Your task to perform on an android device: search for starred emails in the gmail app Image 0: 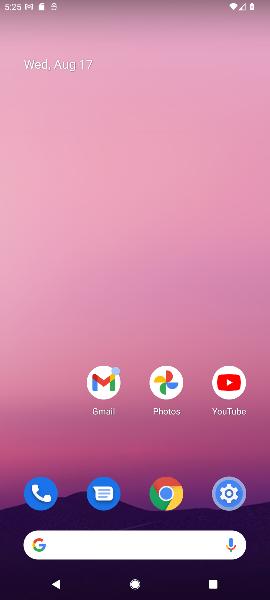
Step 0: press home button
Your task to perform on an android device: search for starred emails in the gmail app Image 1: 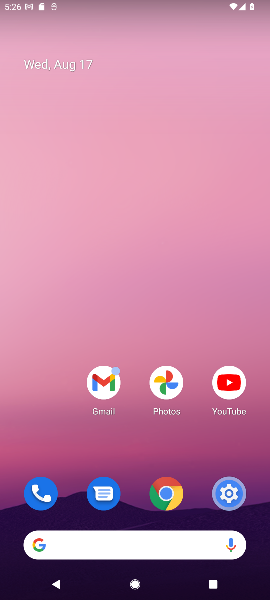
Step 1: click (110, 377)
Your task to perform on an android device: search for starred emails in the gmail app Image 2: 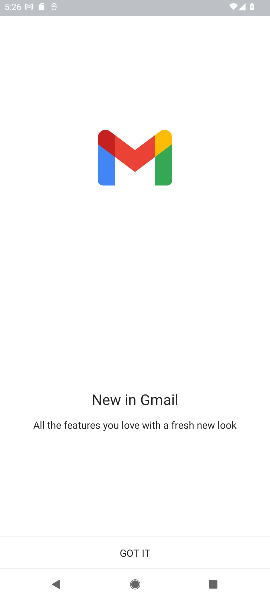
Step 2: click (136, 557)
Your task to perform on an android device: search for starred emails in the gmail app Image 3: 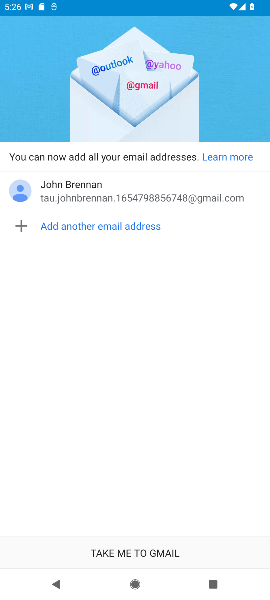
Step 3: click (135, 557)
Your task to perform on an android device: search for starred emails in the gmail app Image 4: 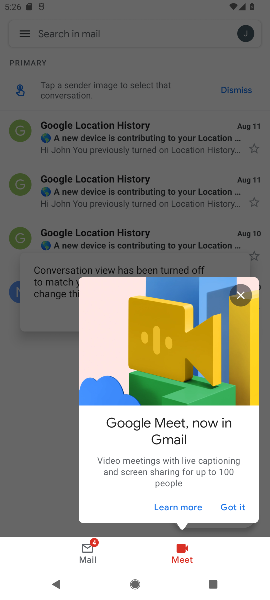
Step 4: click (244, 293)
Your task to perform on an android device: search for starred emails in the gmail app Image 5: 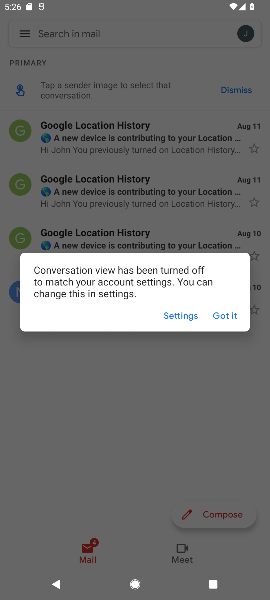
Step 5: click (236, 316)
Your task to perform on an android device: search for starred emails in the gmail app Image 6: 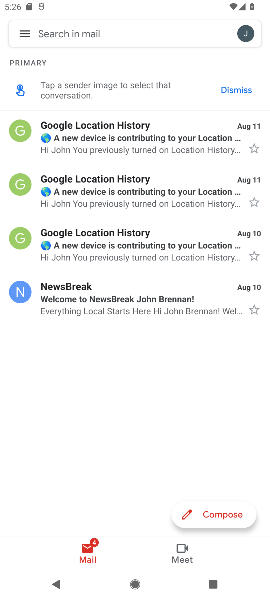
Step 6: click (25, 37)
Your task to perform on an android device: search for starred emails in the gmail app Image 7: 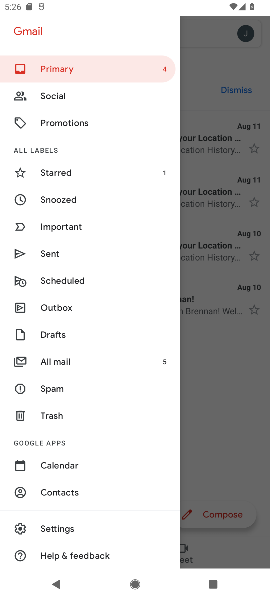
Step 7: click (60, 175)
Your task to perform on an android device: search for starred emails in the gmail app Image 8: 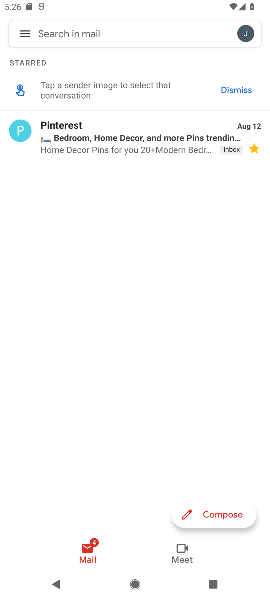
Step 8: task complete